Your task to perform on an android device: turn off airplane mode Image 0: 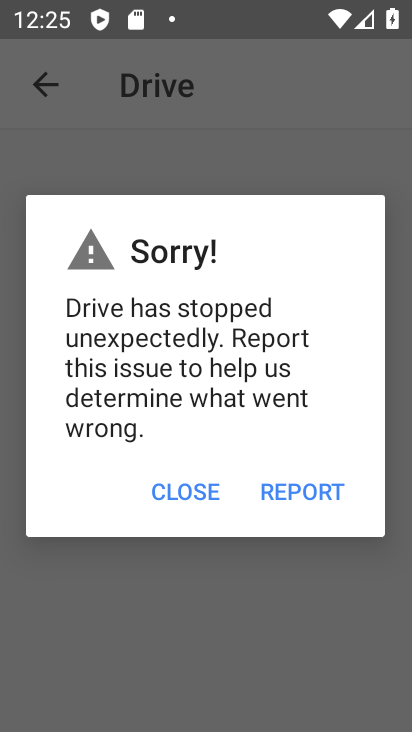
Step 0: press home button
Your task to perform on an android device: turn off airplane mode Image 1: 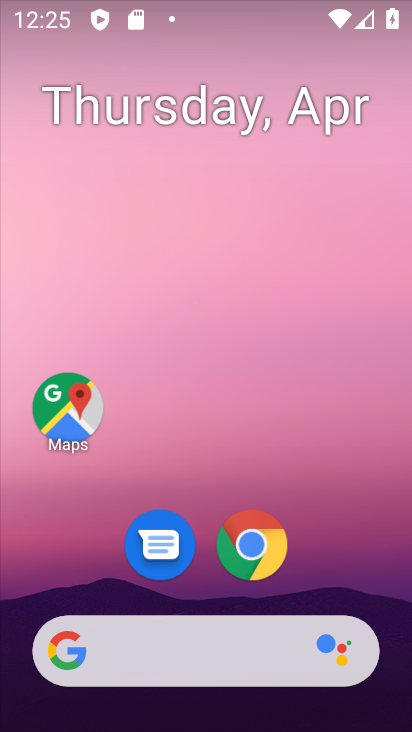
Step 1: task complete